Your task to perform on an android device: What's the weather going to be tomorrow? Image 0: 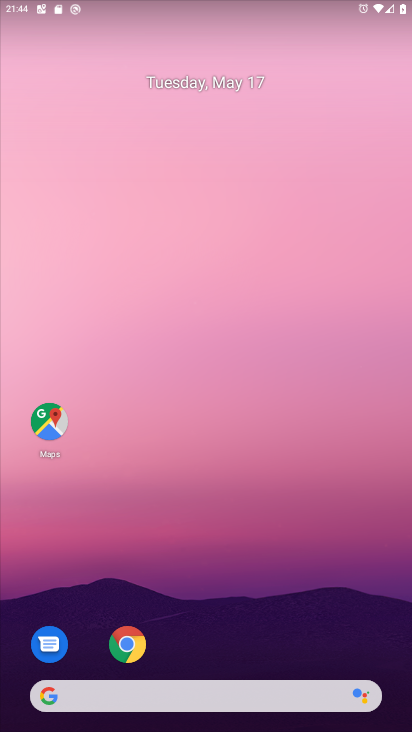
Step 0: drag from (21, 288) to (403, 307)
Your task to perform on an android device: What's the weather going to be tomorrow? Image 1: 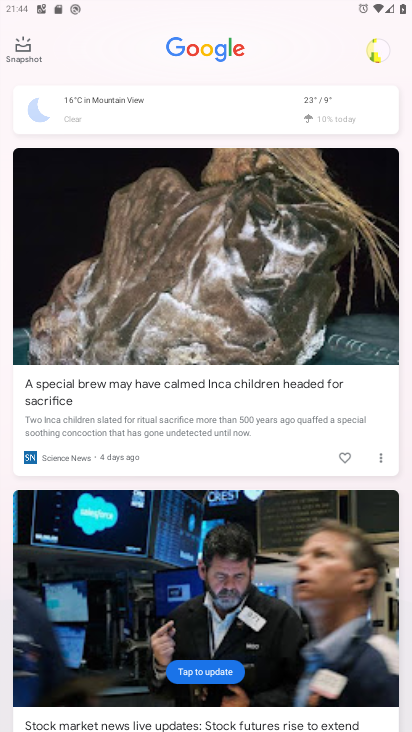
Step 1: click (329, 104)
Your task to perform on an android device: What's the weather going to be tomorrow? Image 2: 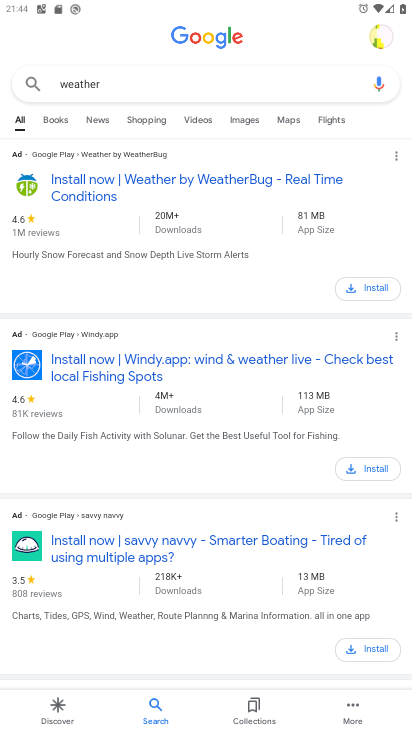
Step 2: drag from (140, 210) to (143, 557)
Your task to perform on an android device: What's the weather going to be tomorrow? Image 3: 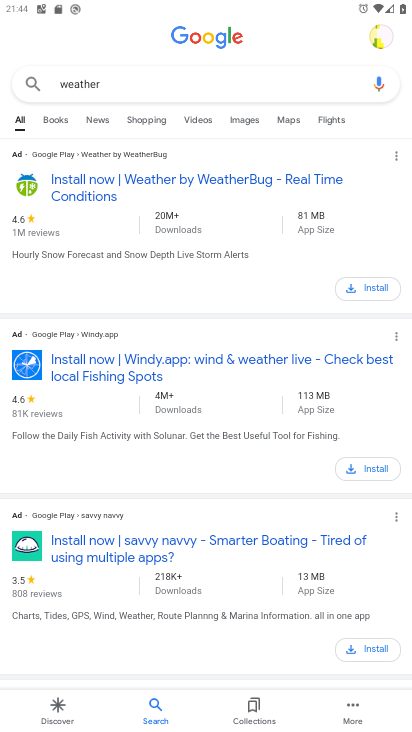
Step 3: drag from (127, 463) to (142, 9)
Your task to perform on an android device: What's the weather going to be tomorrow? Image 4: 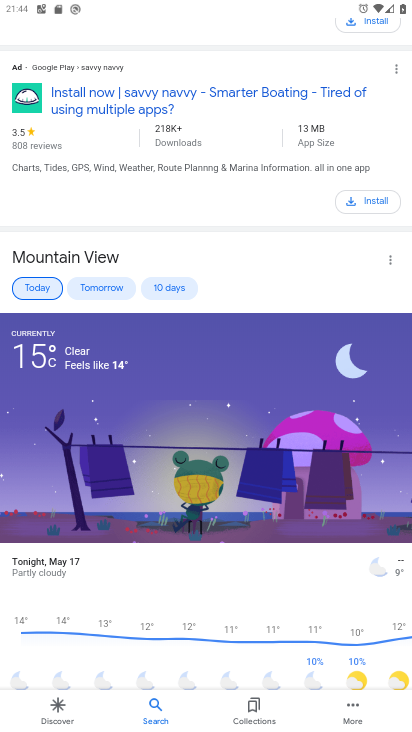
Step 4: click (107, 285)
Your task to perform on an android device: What's the weather going to be tomorrow? Image 5: 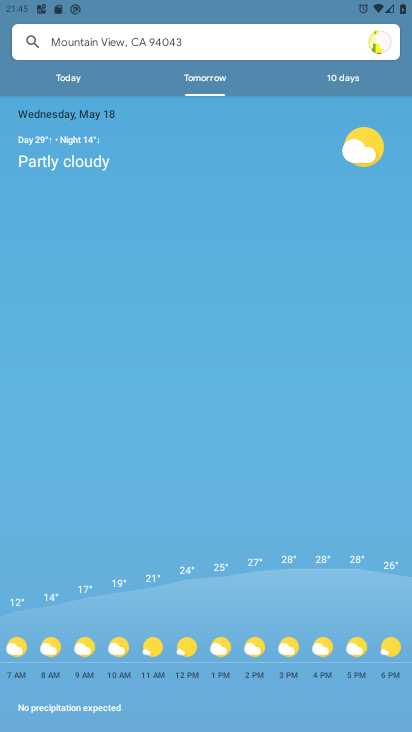
Step 5: task complete